Your task to perform on an android device: Go to sound settings Image 0: 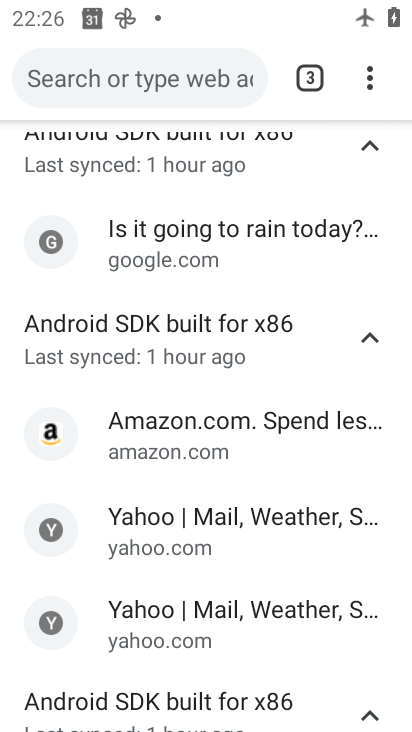
Step 0: press home button
Your task to perform on an android device: Go to sound settings Image 1: 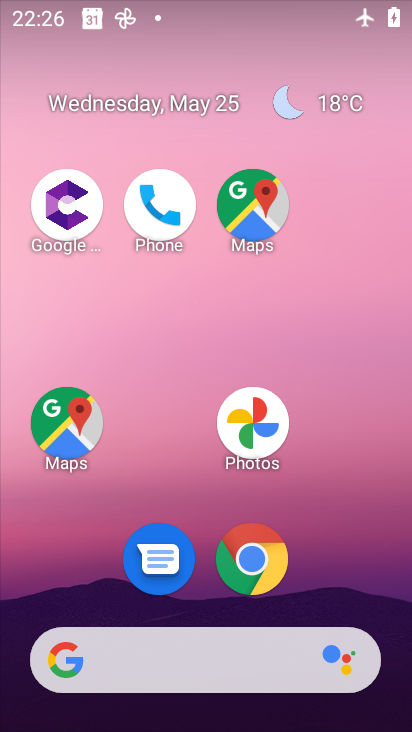
Step 1: drag from (323, 569) to (276, 67)
Your task to perform on an android device: Go to sound settings Image 2: 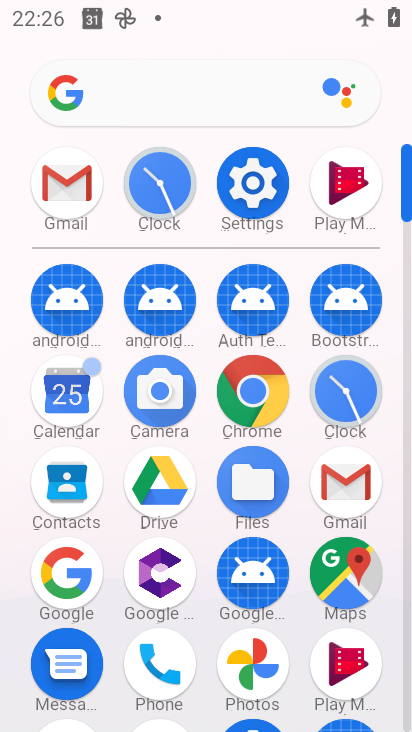
Step 2: click (249, 182)
Your task to perform on an android device: Go to sound settings Image 3: 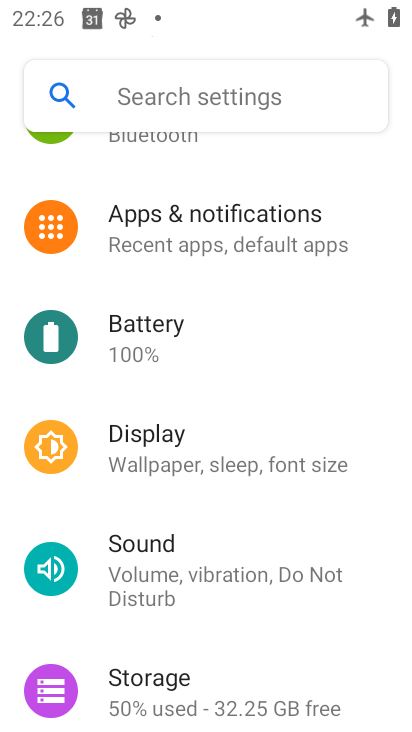
Step 3: click (178, 568)
Your task to perform on an android device: Go to sound settings Image 4: 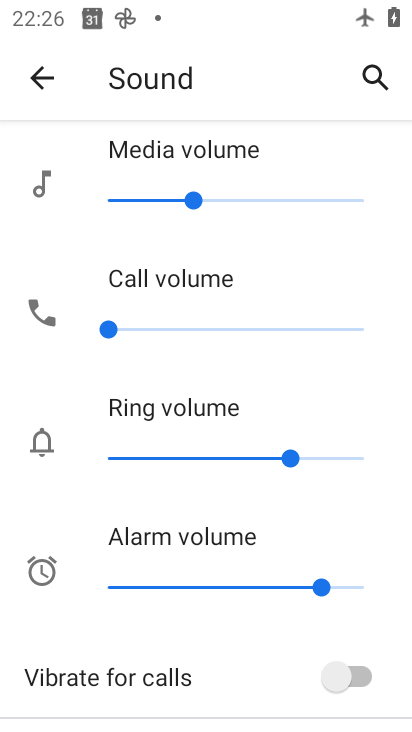
Step 4: task complete